Your task to perform on an android device: find which apps use the phone's location Image 0: 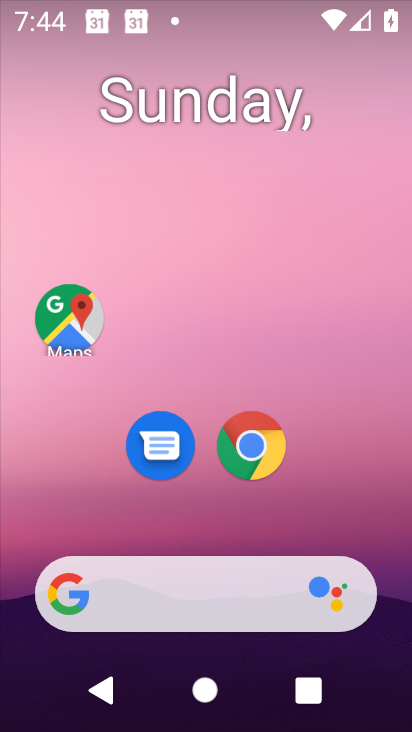
Step 0: drag from (311, 499) to (254, 45)
Your task to perform on an android device: find which apps use the phone's location Image 1: 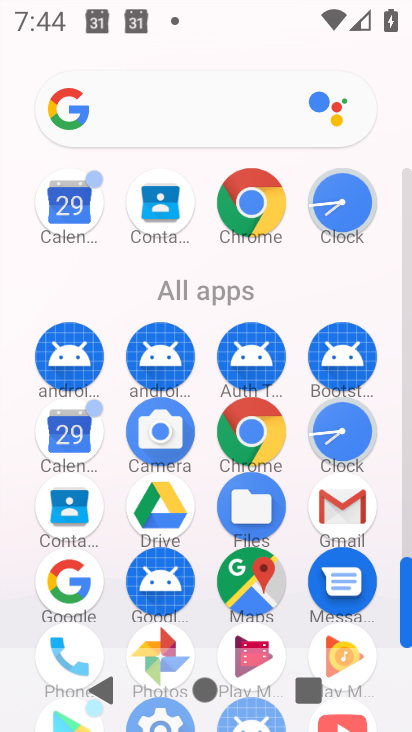
Step 1: drag from (23, 476) to (23, 213)
Your task to perform on an android device: find which apps use the phone's location Image 2: 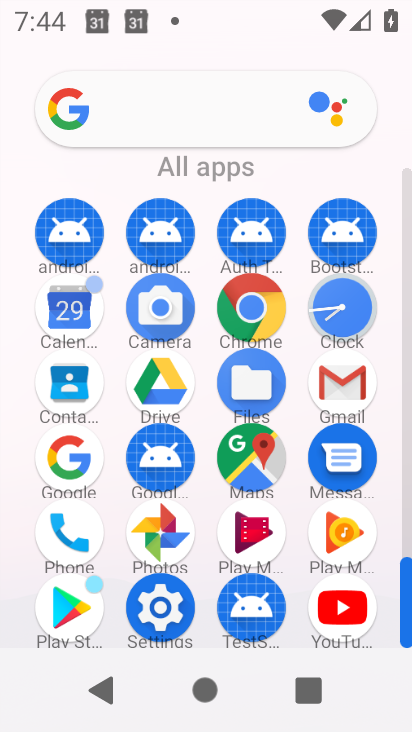
Step 2: drag from (14, 534) to (12, 247)
Your task to perform on an android device: find which apps use the phone's location Image 3: 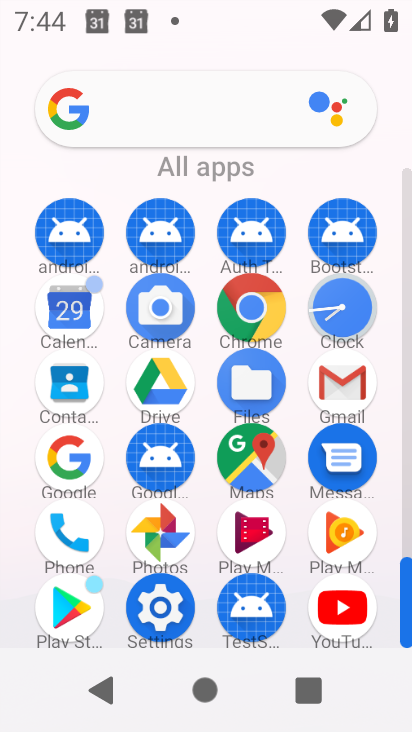
Step 3: drag from (12, 560) to (12, 307)
Your task to perform on an android device: find which apps use the phone's location Image 4: 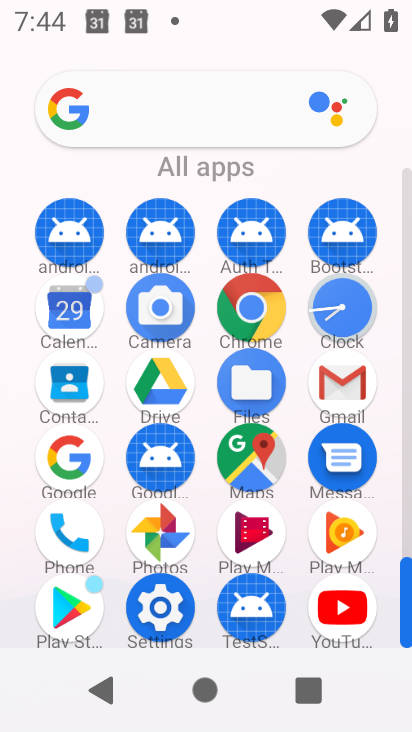
Step 4: click (159, 604)
Your task to perform on an android device: find which apps use the phone's location Image 5: 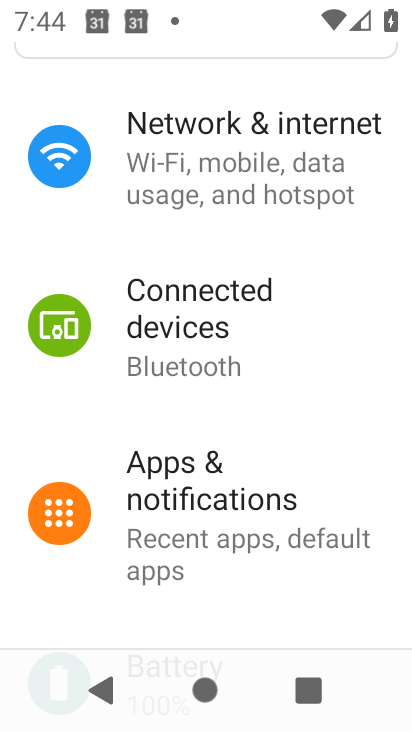
Step 5: drag from (264, 540) to (260, 109)
Your task to perform on an android device: find which apps use the phone's location Image 6: 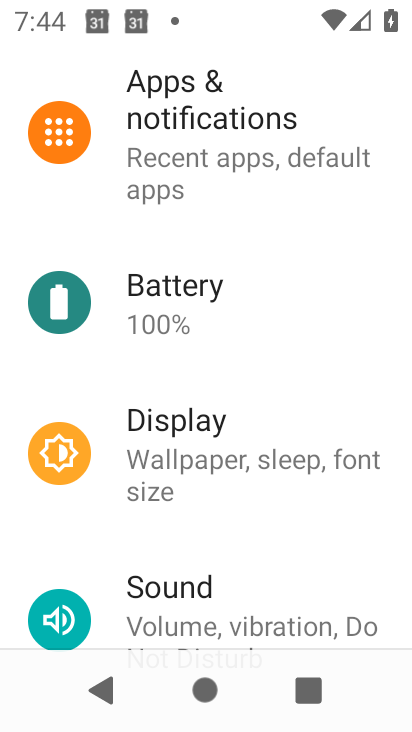
Step 6: drag from (224, 535) to (251, 147)
Your task to perform on an android device: find which apps use the phone's location Image 7: 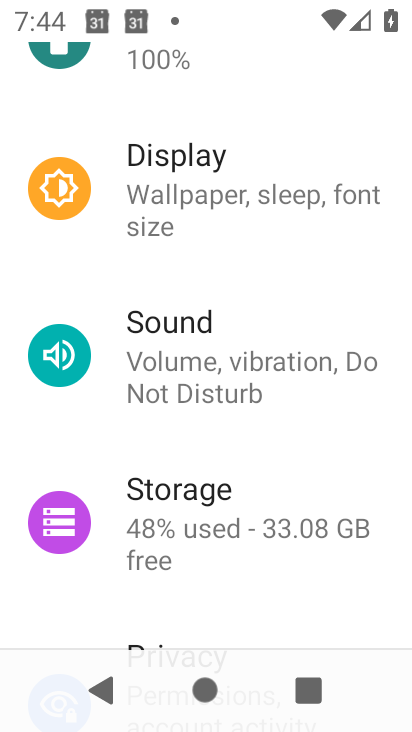
Step 7: drag from (209, 557) to (229, 103)
Your task to perform on an android device: find which apps use the phone's location Image 8: 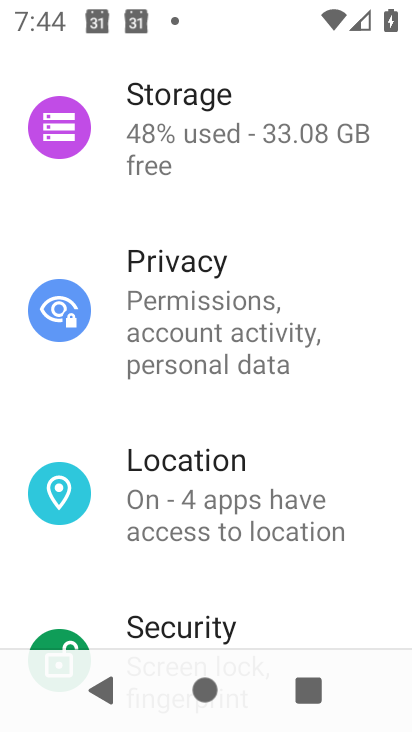
Step 8: click (202, 495)
Your task to perform on an android device: find which apps use the phone's location Image 9: 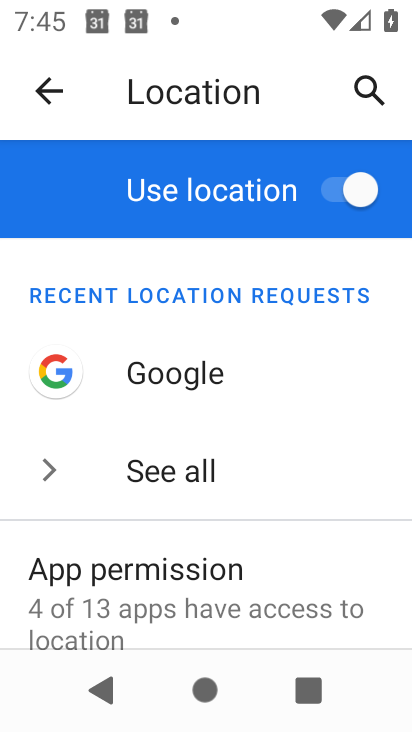
Step 9: click (259, 584)
Your task to perform on an android device: find which apps use the phone's location Image 10: 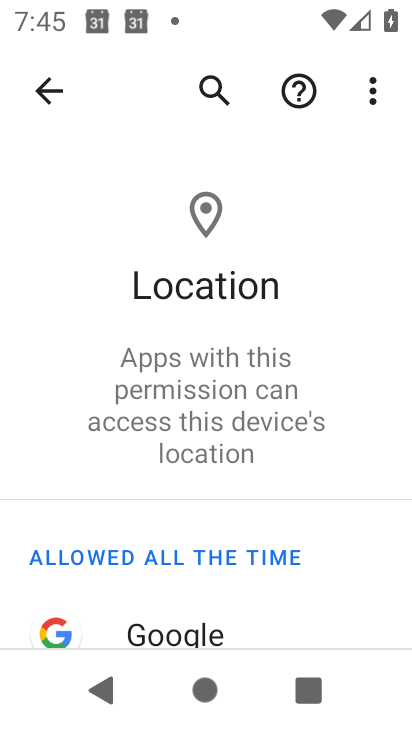
Step 10: task complete